Your task to perform on an android device: Go to battery settings Image 0: 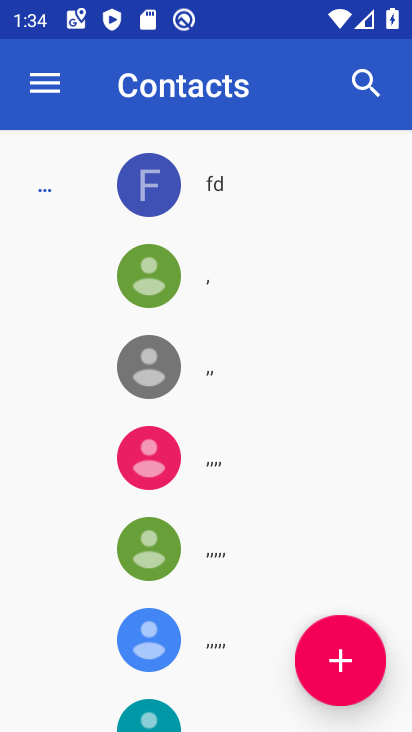
Step 0: press home button
Your task to perform on an android device: Go to battery settings Image 1: 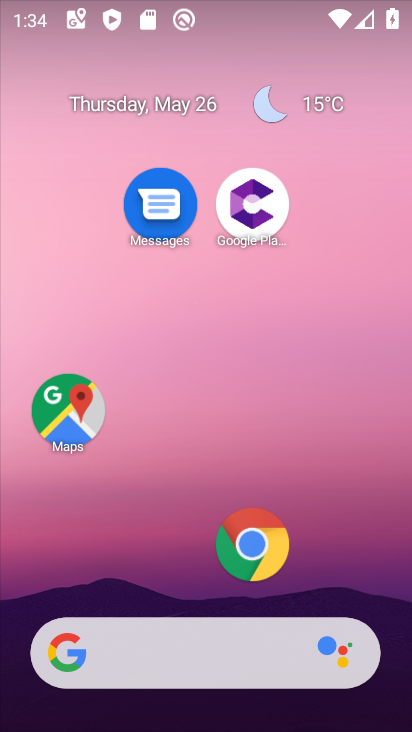
Step 1: drag from (138, 579) to (213, 50)
Your task to perform on an android device: Go to battery settings Image 2: 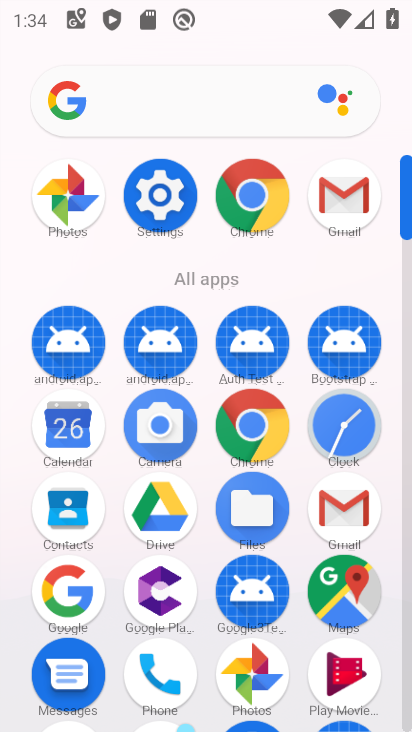
Step 2: click (141, 192)
Your task to perform on an android device: Go to battery settings Image 3: 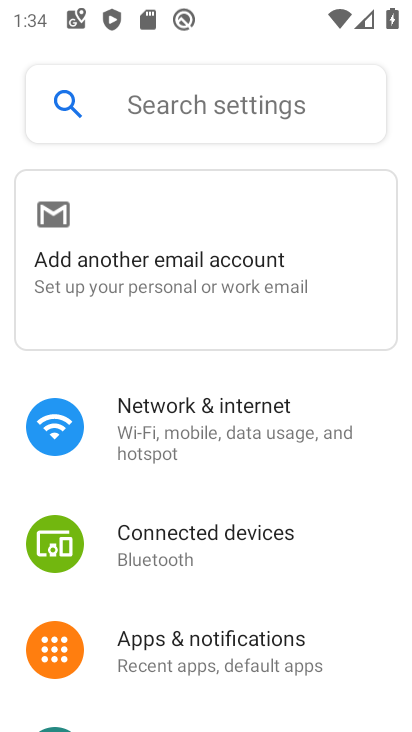
Step 3: drag from (146, 688) to (288, 129)
Your task to perform on an android device: Go to battery settings Image 4: 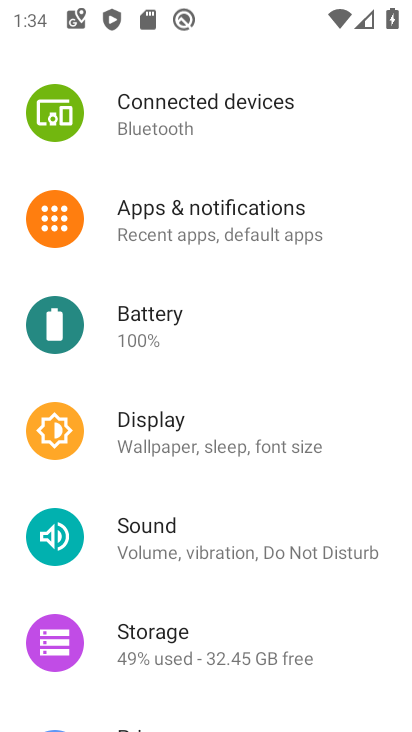
Step 4: click (157, 317)
Your task to perform on an android device: Go to battery settings Image 5: 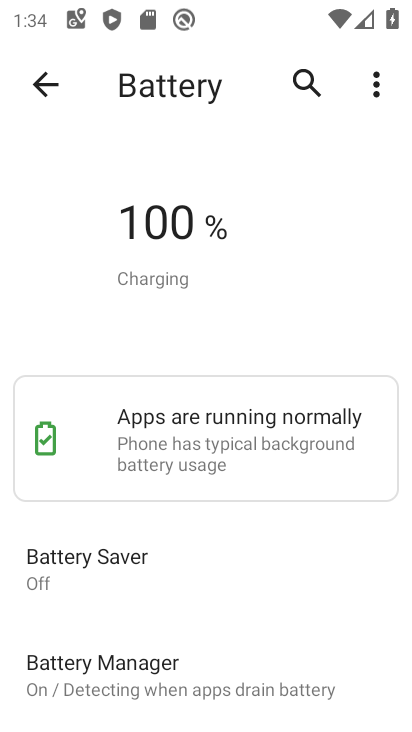
Step 5: click (396, 95)
Your task to perform on an android device: Go to battery settings Image 6: 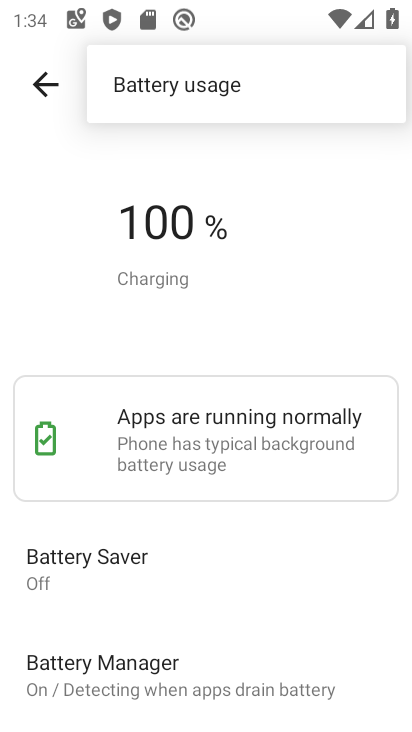
Step 6: task complete